Your task to perform on an android device: change timer sound Image 0: 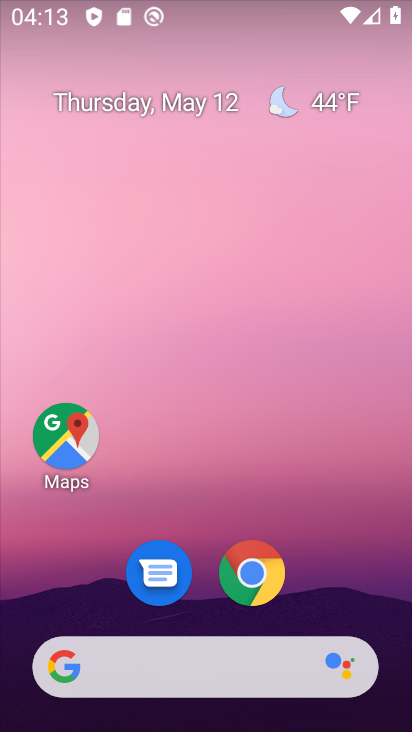
Step 0: drag from (393, 651) to (332, 80)
Your task to perform on an android device: change timer sound Image 1: 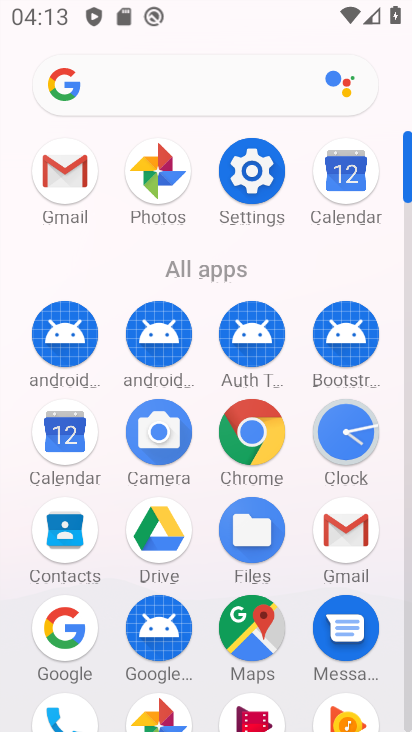
Step 1: click (341, 432)
Your task to perform on an android device: change timer sound Image 2: 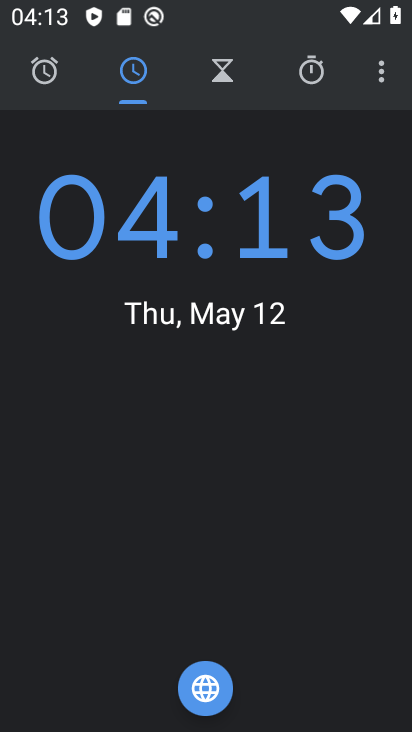
Step 2: click (382, 74)
Your task to perform on an android device: change timer sound Image 3: 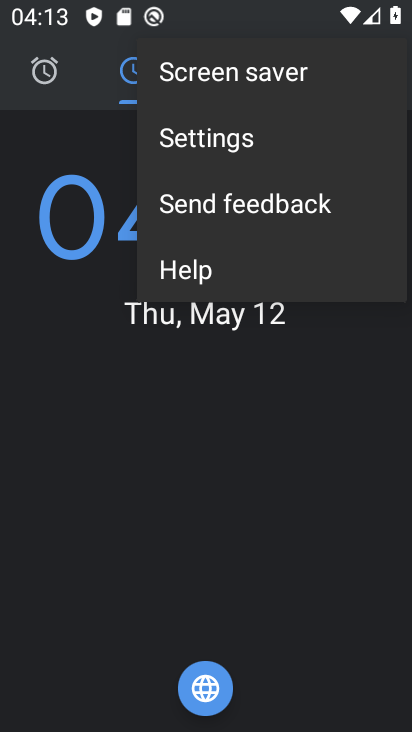
Step 3: click (208, 134)
Your task to perform on an android device: change timer sound Image 4: 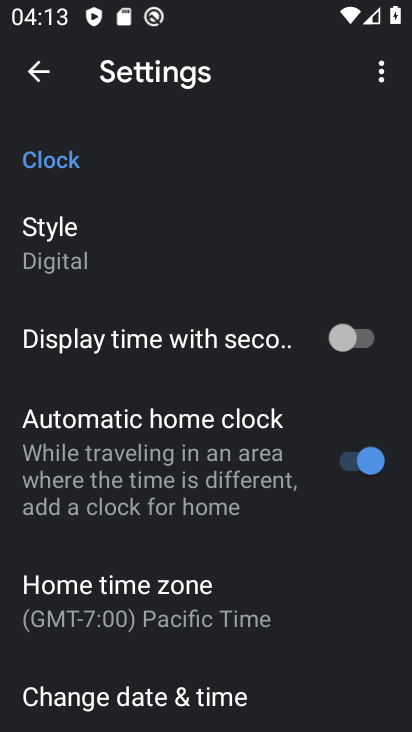
Step 4: drag from (198, 507) to (214, 146)
Your task to perform on an android device: change timer sound Image 5: 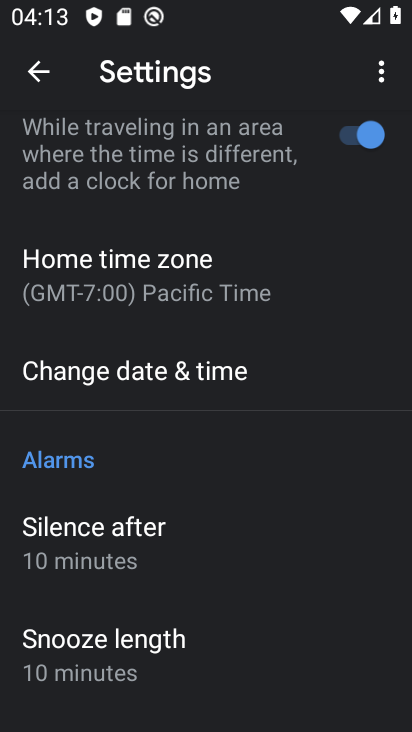
Step 5: drag from (203, 540) to (238, 93)
Your task to perform on an android device: change timer sound Image 6: 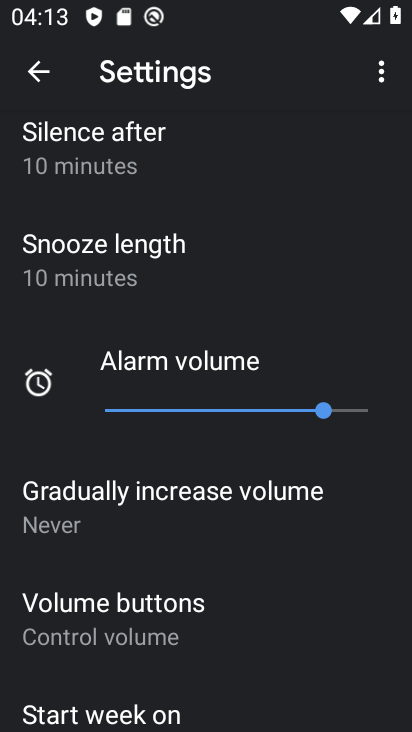
Step 6: drag from (216, 557) to (277, 31)
Your task to perform on an android device: change timer sound Image 7: 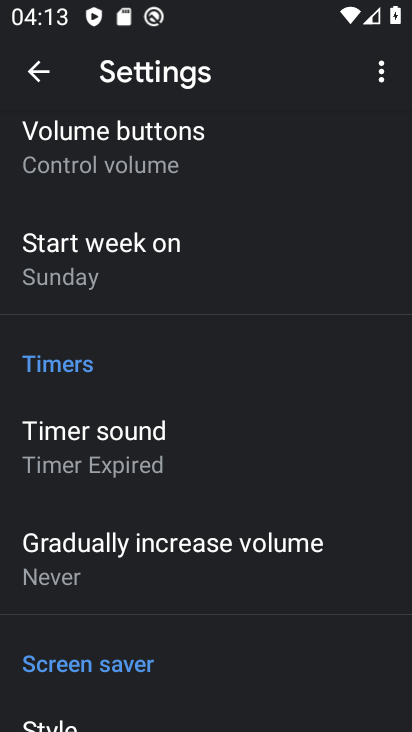
Step 7: click (92, 452)
Your task to perform on an android device: change timer sound Image 8: 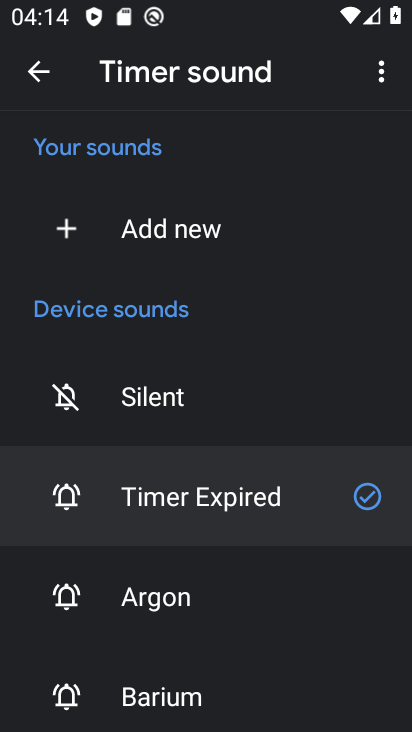
Step 8: drag from (227, 650) to (269, 205)
Your task to perform on an android device: change timer sound Image 9: 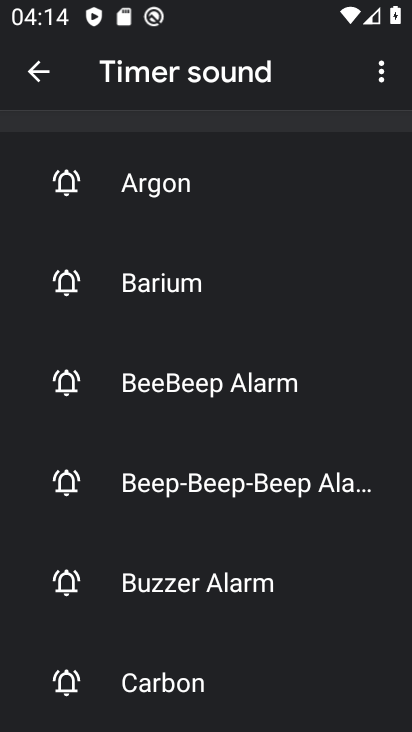
Step 9: click (167, 386)
Your task to perform on an android device: change timer sound Image 10: 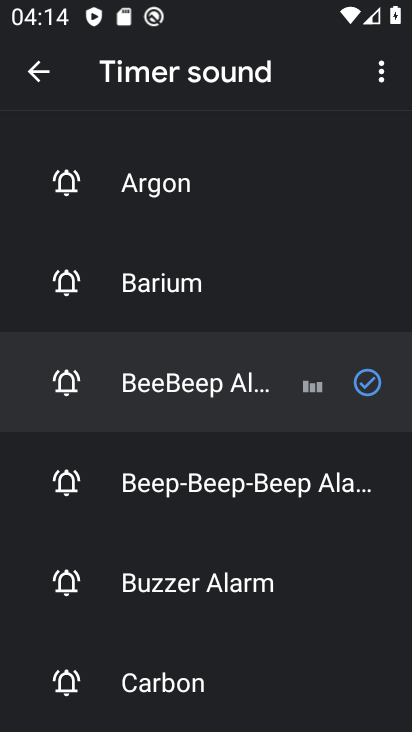
Step 10: task complete